Your task to perform on an android device: Open my contact list Image 0: 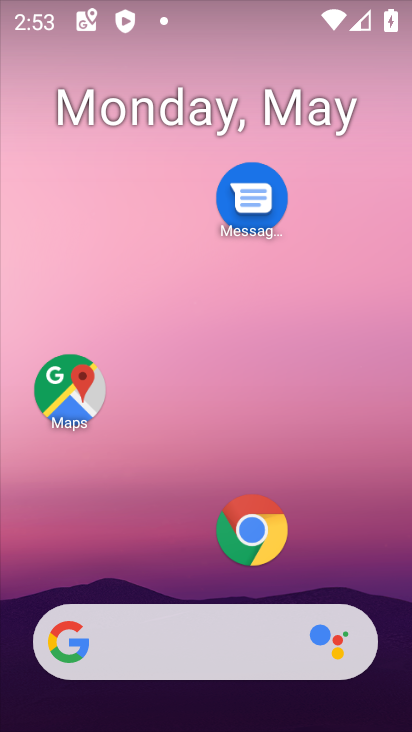
Step 0: drag from (134, 552) to (178, 129)
Your task to perform on an android device: Open my contact list Image 1: 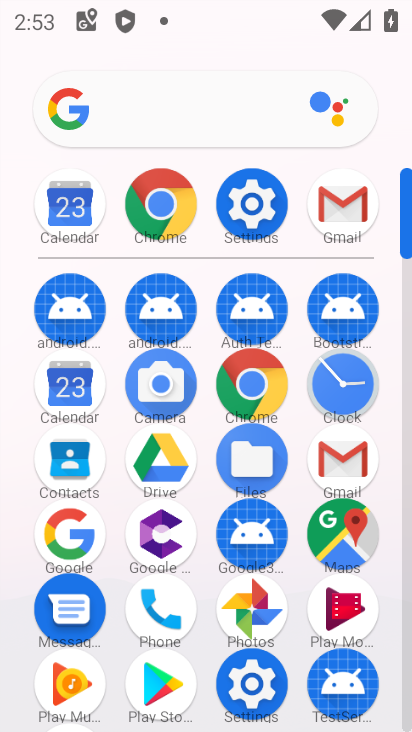
Step 1: click (55, 466)
Your task to perform on an android device: Open my contact list Image 2: 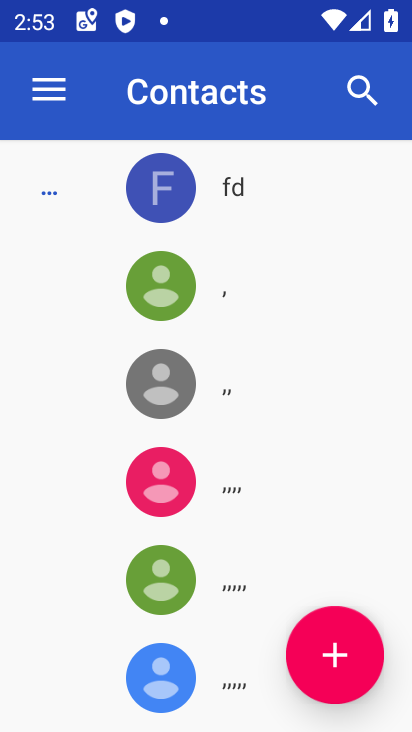
Step 2: task complete